Your task to perform on an android device: Open maps Image 0: 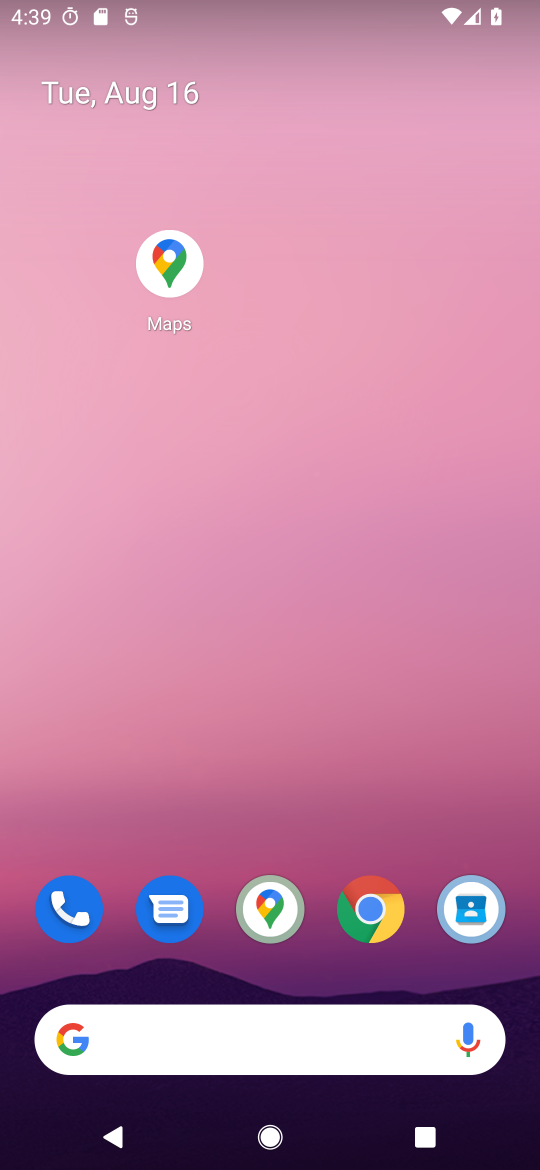
Step 0: click (273, 911)
Your task to perform on an android device: Open maps Image 1: 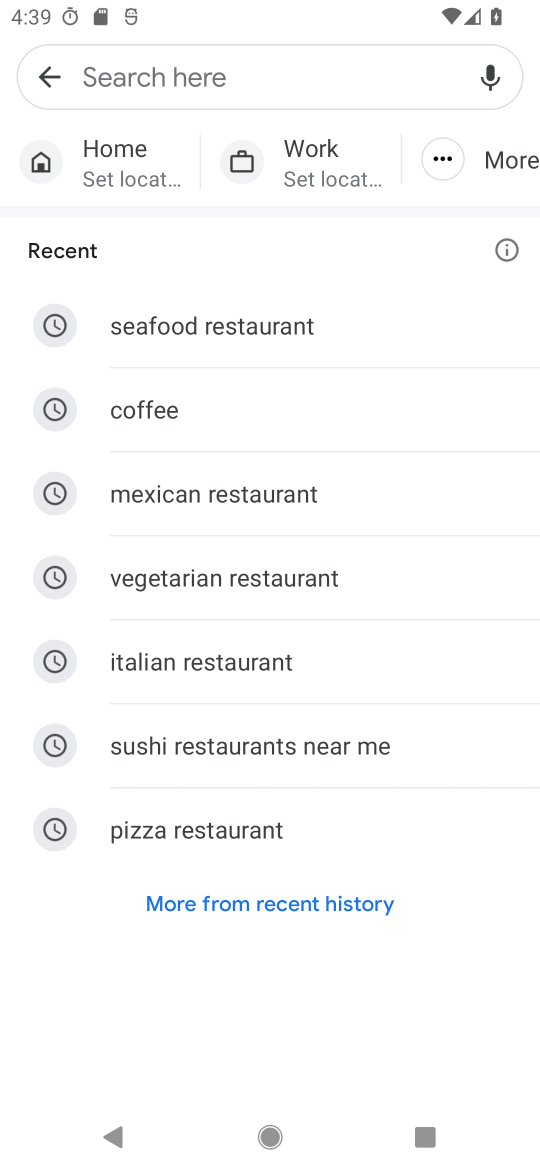
Step 1: task complete